Your task to perform on an android device: Open privacy settings Image 0: 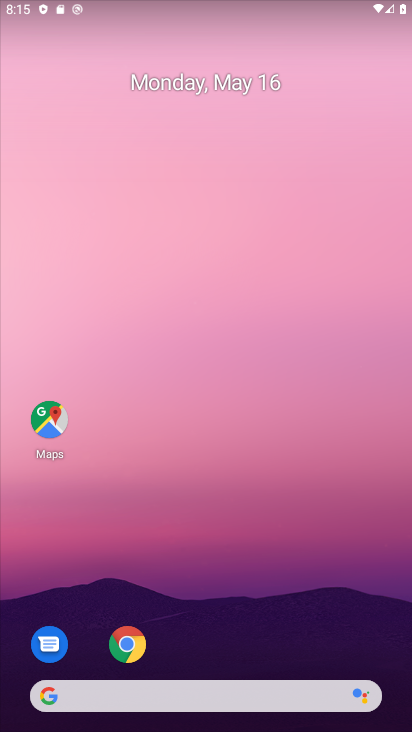
Step 0: click (131, 640)
Your task to perform on an android device: Open privacy settings Image 1: 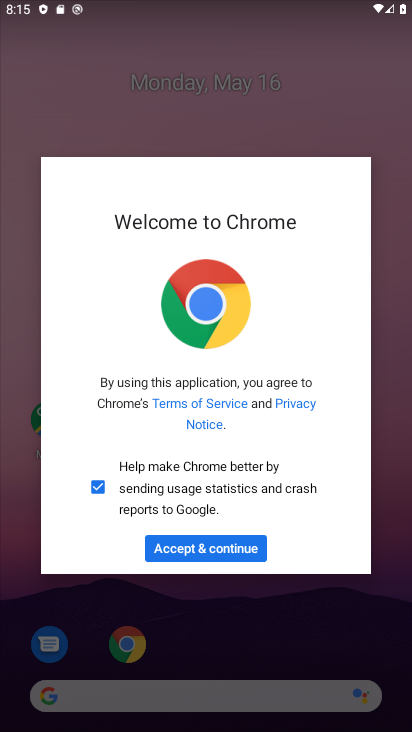
Step 1: click (188, 544)
Your task to perform on an android device: Open privacy settings Image 2: 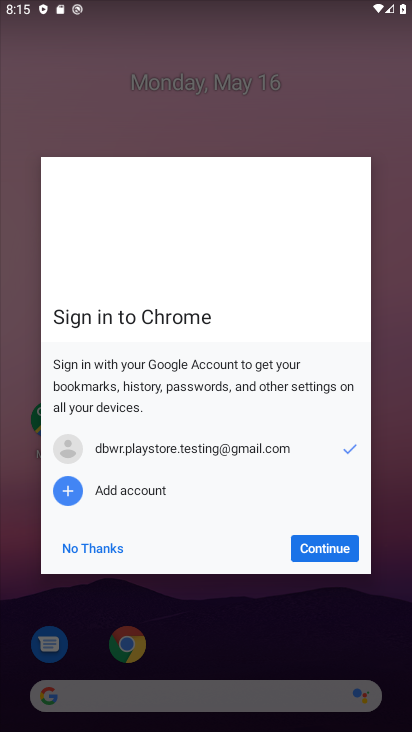
Step 2: click (308, 546)
Your task to perform on an android device: Open privacy settings Image 3: 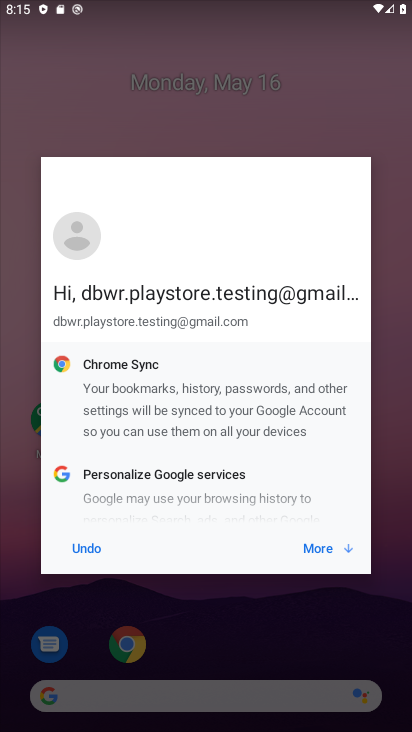
Step 3: click (308, 546)
Your task to perform on an android device: Open privacy settings Image 4: 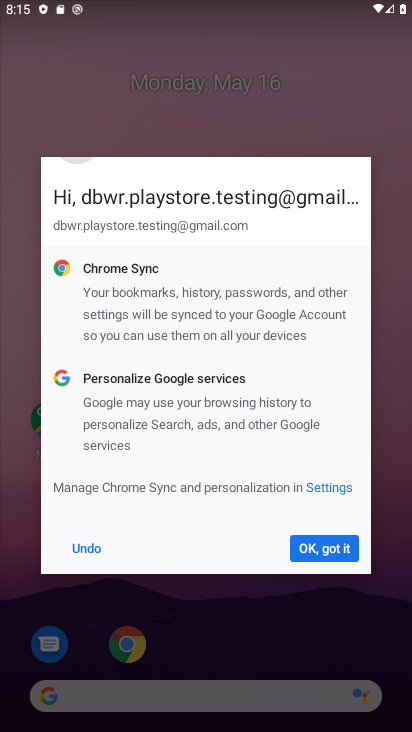
Step 4: click (308, 546)
Your task to perform on an android device: Open privacy settings Image 5: 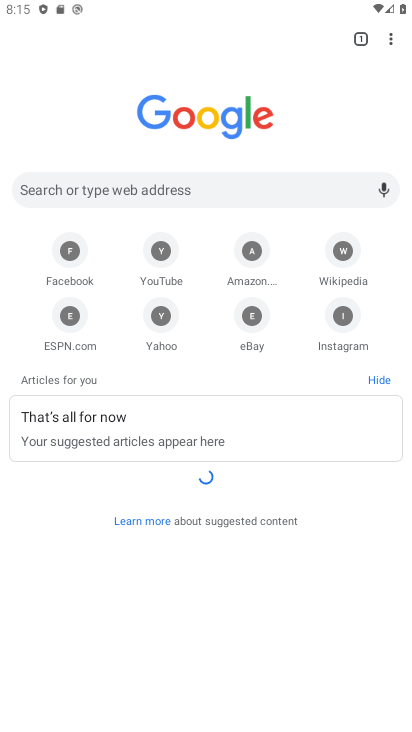
Step 5: click (386, 37)
Your task to perform on an android device: Open privacy settings Image 6: 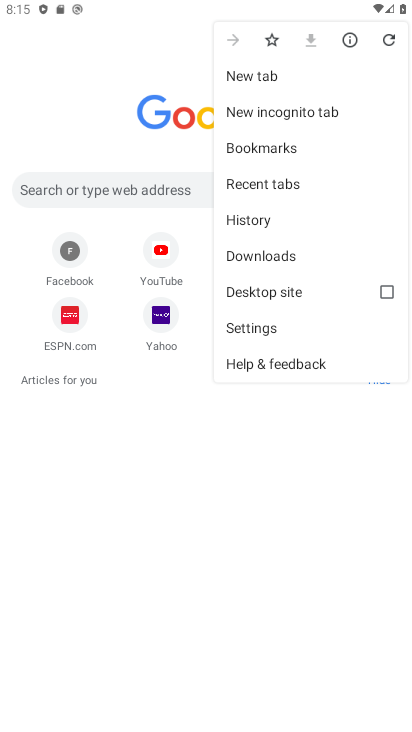
Step 6: click (255, 330)
Your task to perform on an android device: Open privacy settings Image 7: 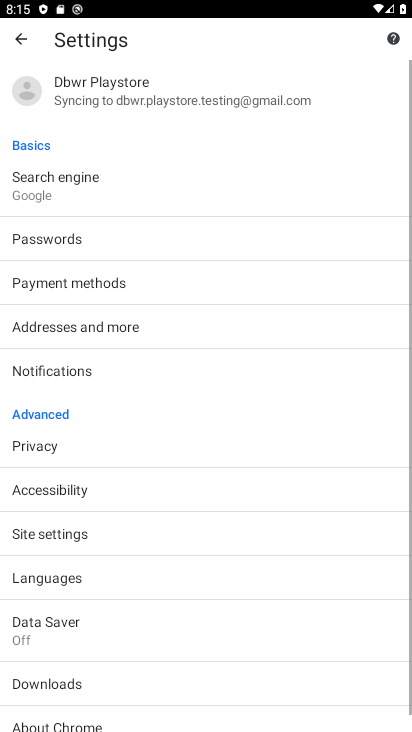
Step 7: click (40, 442)
Your task to perform on an android device: Open privacy settings Image 8: 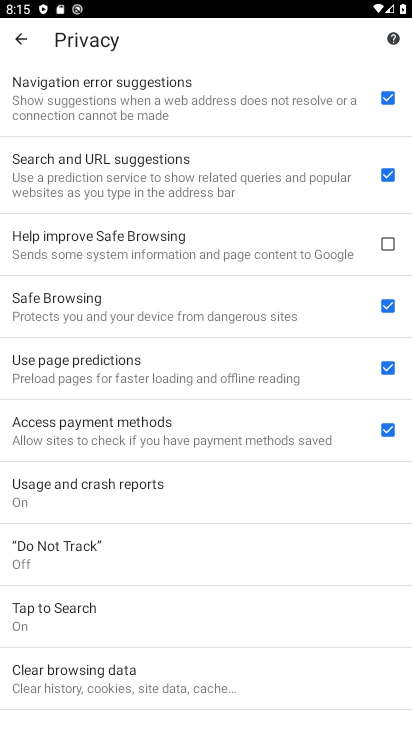
Step 8: task complete